Your task to perform on an android device: toggle wifi Image 0: 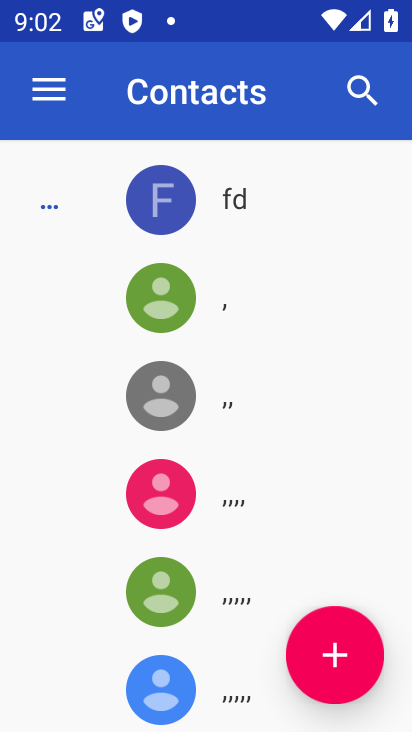
Step 0: press home button
Your task to perform on an android device: toggle wifi Image 1: 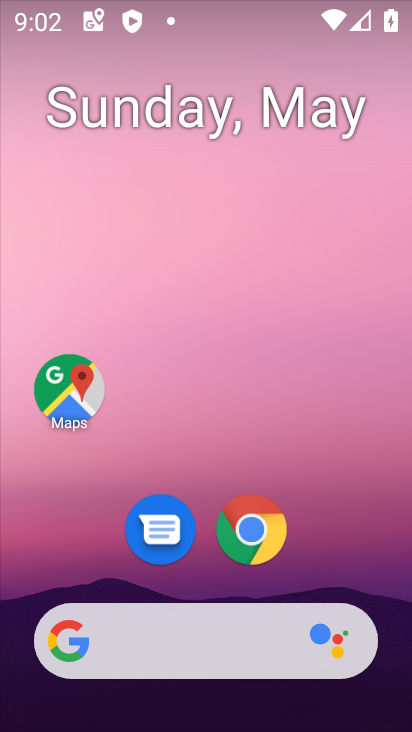
Step 1: drag from (201, 586) to (230, 29)
Your task to perform on an android device: toggle wifi Image 2: 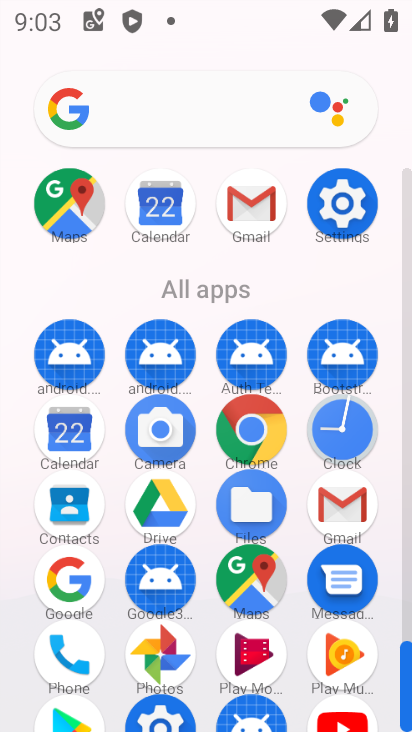
Step 2: click (350, 203)
Your task to perform on an android device: toggle wifi Image 3: 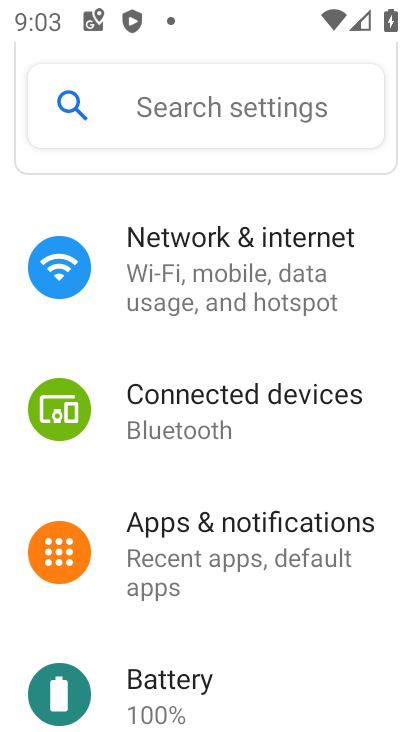
Step 3: click (212, 262)
Your task to perform on an android device: toggle wifi Image 4: 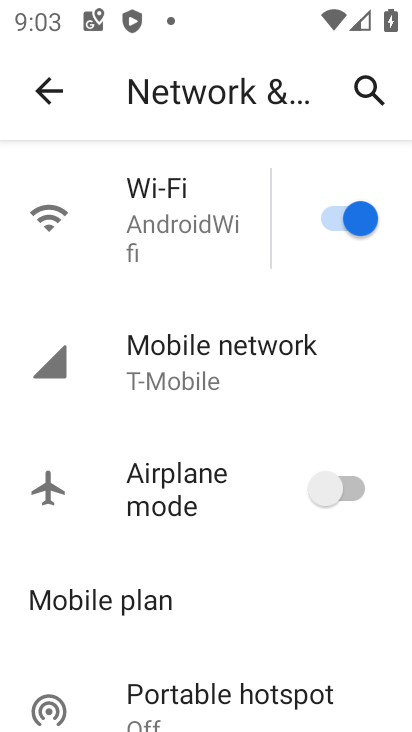
Step 4: click (327, 220)
Your task to perform on an android device: toggle wifi Image 5: 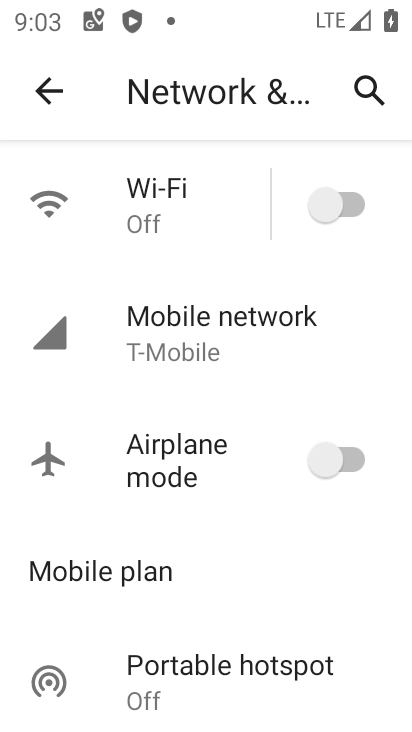
Step 5: task complete